Your task to perform on an android device: toggle translation in the chrome app Image 0: 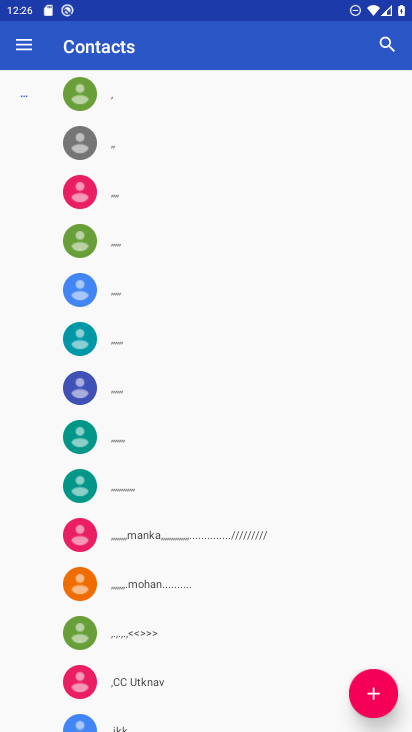
Step 0: press home button
Your task to perform on an android device: toggle translation in the chrome app Image 1: 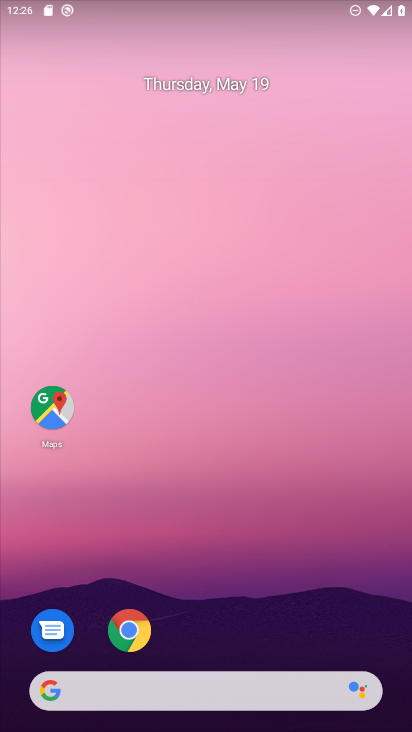
Step 1: click (131, 632)
Your task to perform on an android device: toggle translation in the chrome app Image 2: 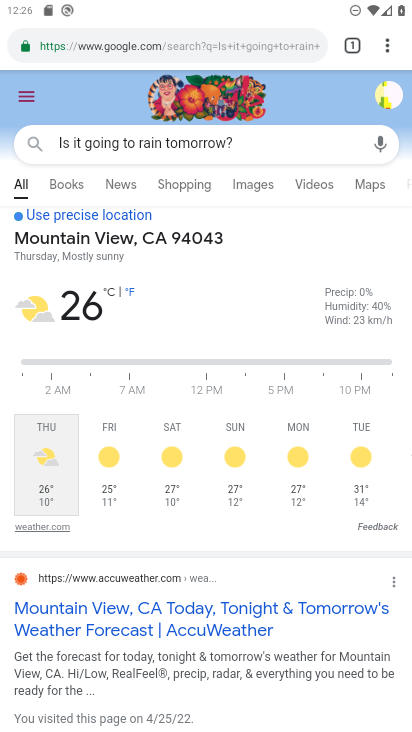
Step 2: click (388, 38)
Your task to perform on an android device: toggle translation in the chrome app Image 3: 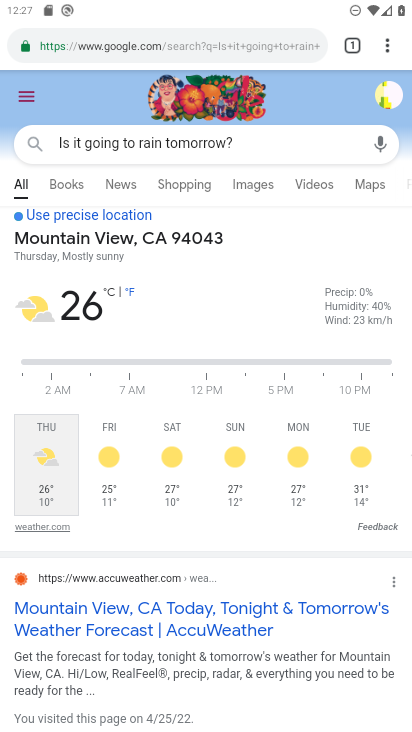
Step 3: click (390, 43)
Your task to perform on an android device: toggle translation in the chrome app Image 4: 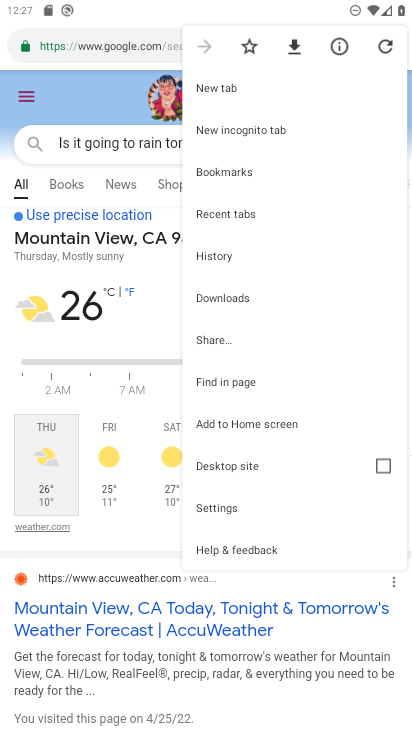
Step 4: click (202, 509)
Your task to perform on an android device: toggle translation in the chrome app Image 5: 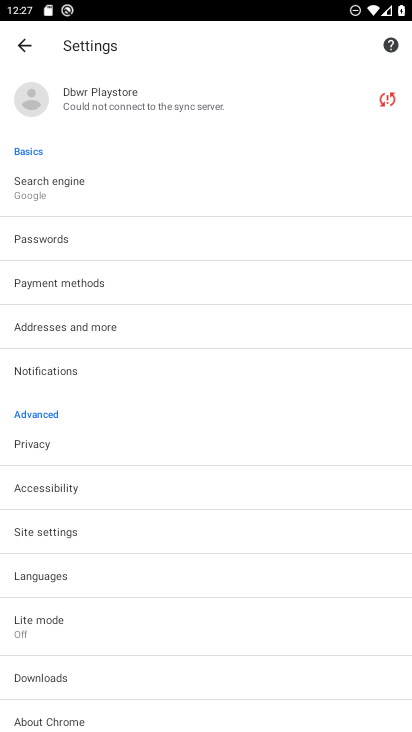
Step 5: click (41, 571)
Your task to perform on an android device: toggle translation in the chrome app Image 6: 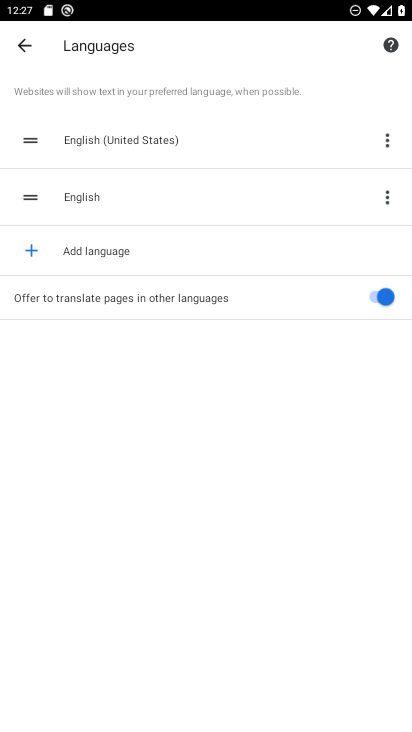
Step 6: click (375, 301)
Your task to perform on an android device: toggle translation in the chrome app Image 7: 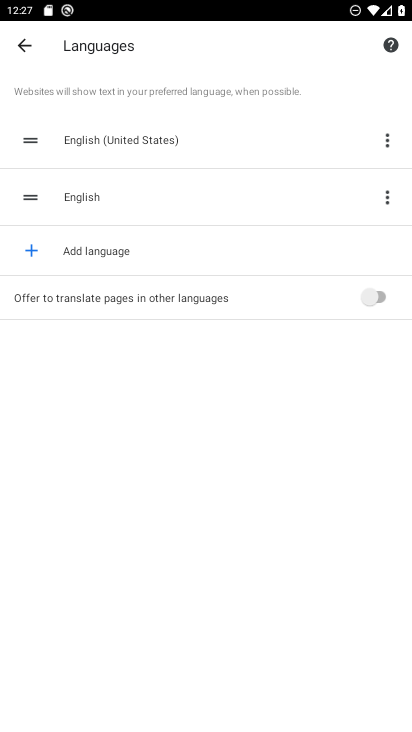
Step 7: task complete